Your task to perform on an android device: move a message to another label in the gmail app Image 0: 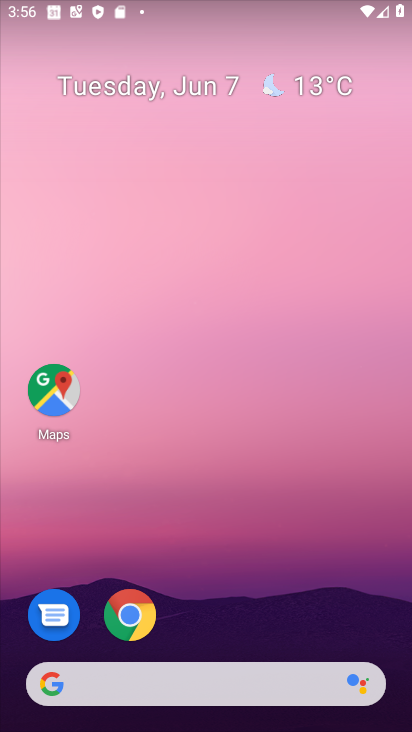
Step 0: drag from (145, 349) to (248, 31)
Your task to perform on an android device: move a message to another label in the gmail app Image 1: 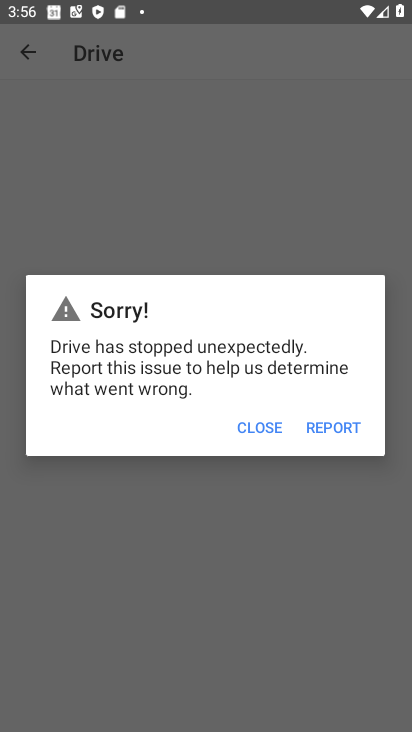
Step 1: press home button
Your task to perform on an android device: move a message to another label in the gmail app Image 2: 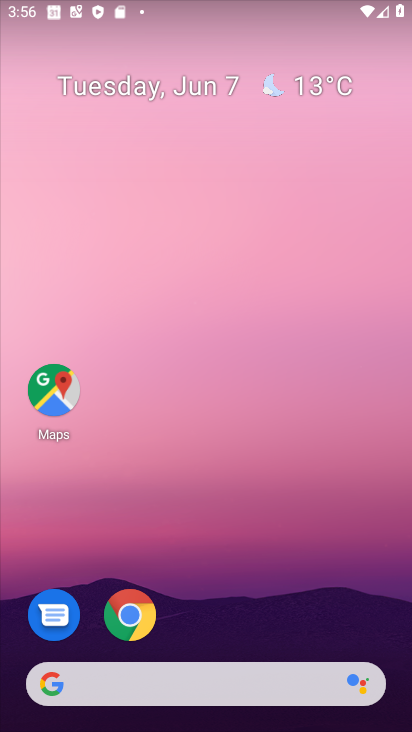
Step 2: click (251, 612)
Your task to perform on an android device: move a message to another label in the gmail app Image 3: 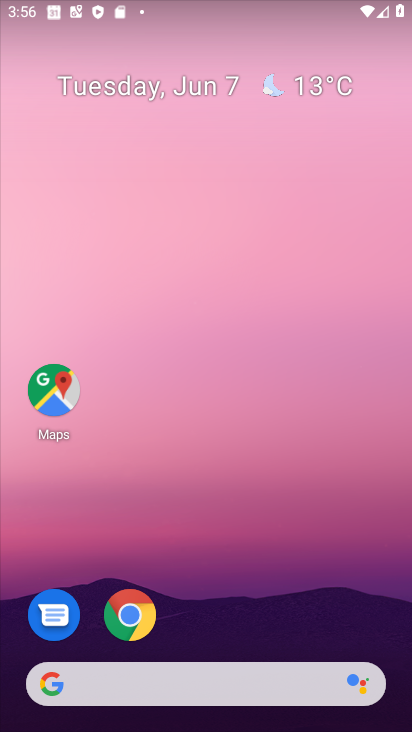
Step 3: drag from (237, 639) to (269, 131)
Your task to perform on an android device: move a message to another label in the gmail app Image 4: 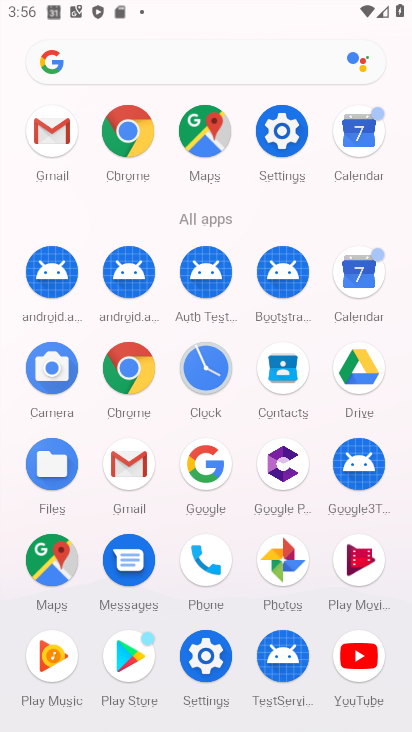
Step 4: click (128, 463)
Your task to perform on an android device: move a message to another label in the gmail app Image 5: 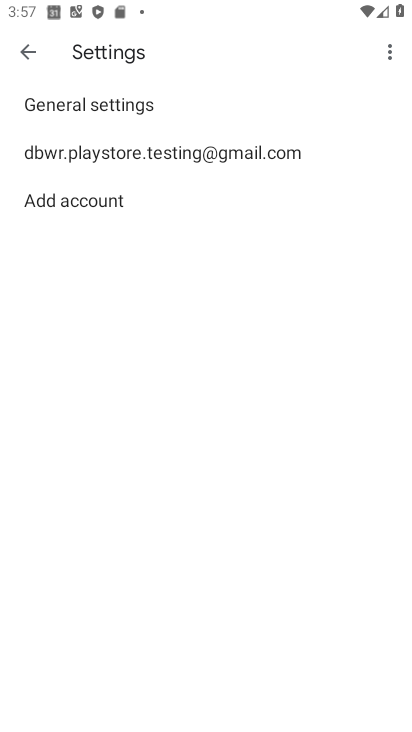
Step 5: click (29, 57)
Your task to perform on an android device: move a message to another label in the gmail app Image 6: 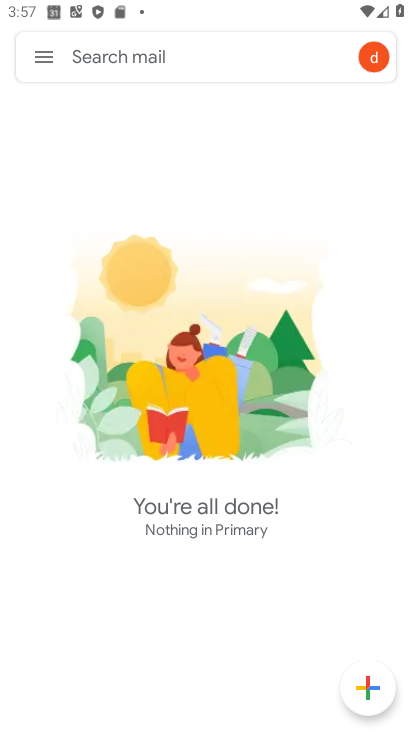
Step 6: click (30, 57)
Your task to perform on an android device: move a message to another label in the gmail app Image 7: 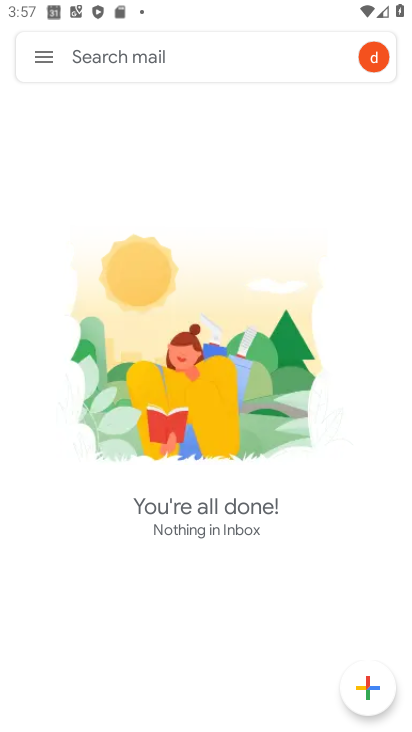
Step 7: click (45, 52)
Your task to perform on an android device: move a message to another label in the gmail app Image 8: 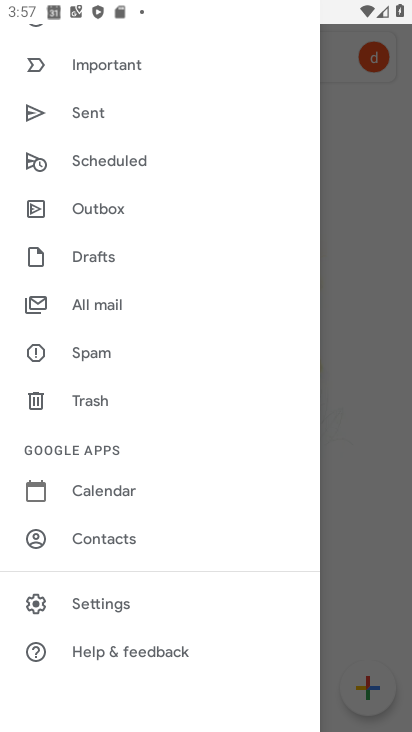
Step 8: click (105, 302)
Your task to perform on an android device: move a message to another label in the gmail app Image 9: 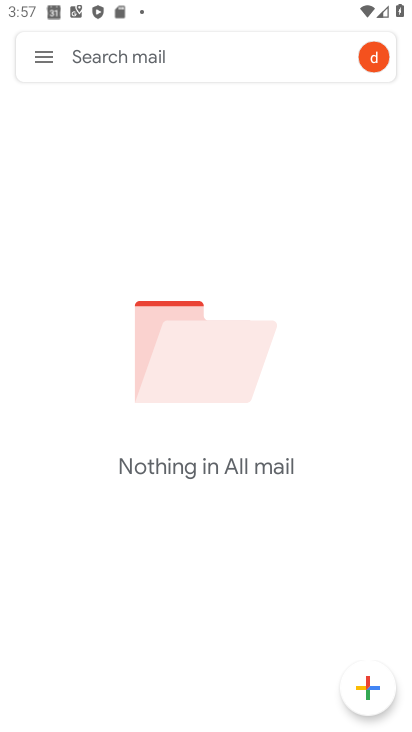
Step 9: task complete